Your task to perform on an android device: toggle data saver in the chrome app Image 0: 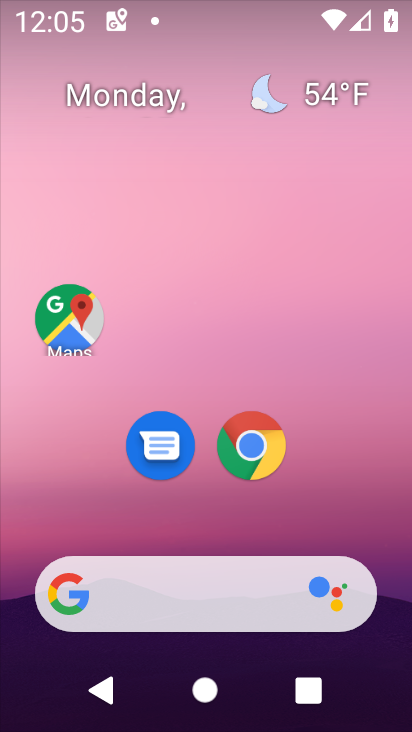
Step 0: drag from (380, 521) to (357, 96)
Your task to perform on an android device: toggle data saver in the chrome app Image 1: 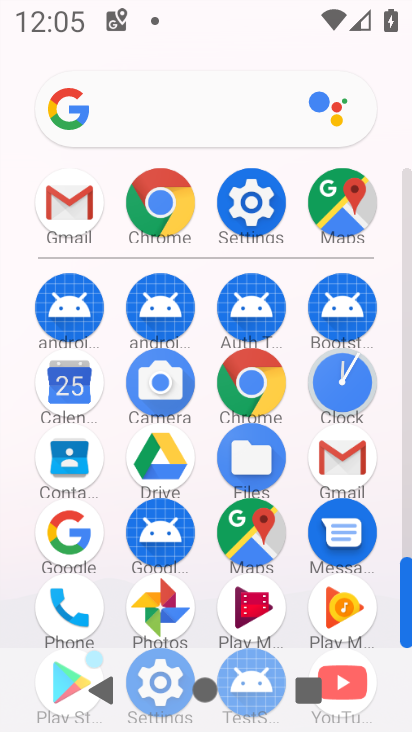
Step 1: click (253, 388)
Your task to perform on an android device: toggle data saver in the chrome app Image 2: 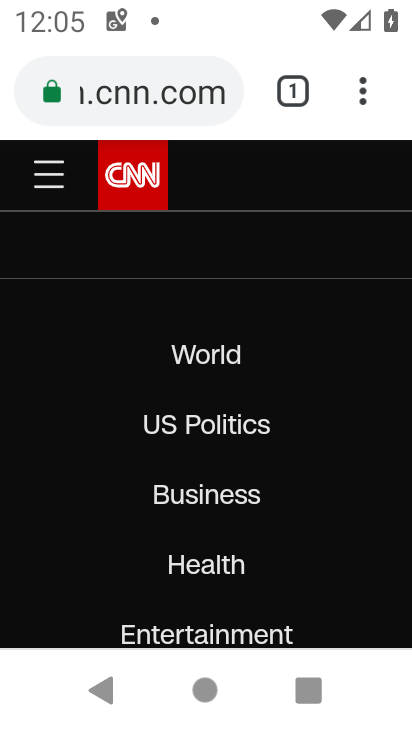
Step 2: drag from (359, 110) to (110, 462)
Your task to perform on an android device: toggle data saver in the chrome app Image 3: 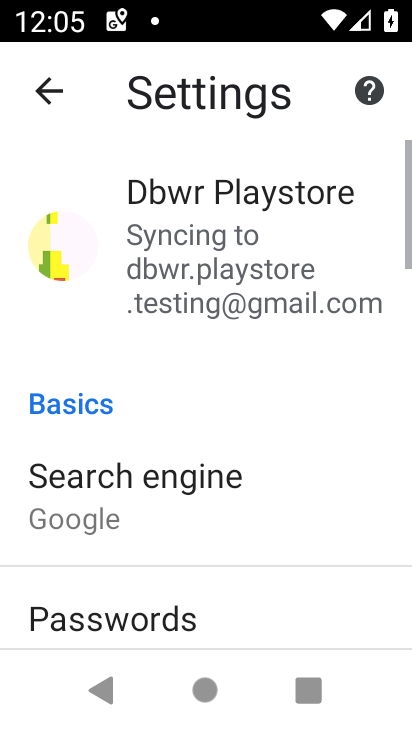
Step 3: drag from (297, 585) to (299, 220)
Your task to perform on an android device: toggle data saver in the chrome app Image 4: 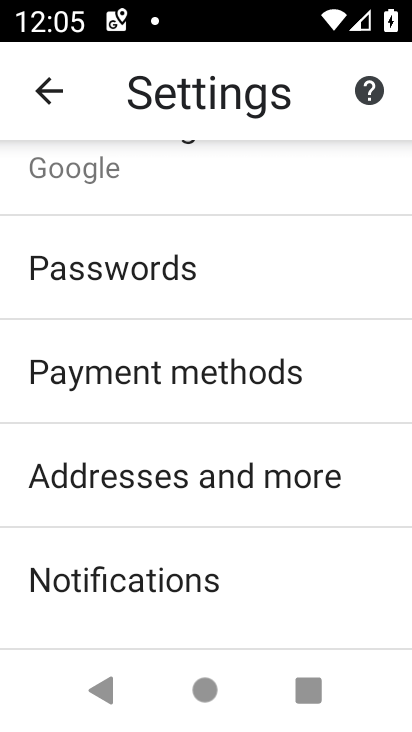
Step 4: drag from (323, 558) to (292, 233)
Your task to perform on an android device: toggle data saver in the chrome app Image 5: 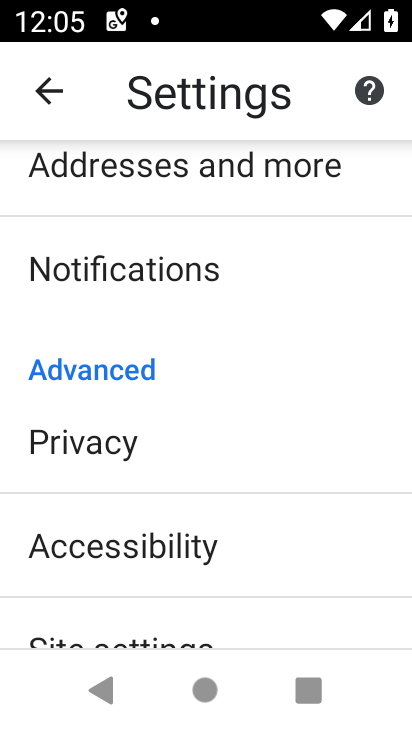
Step 5: drag from (300, 600) to (289, 267)
Your task to perform on an android device: toggle data saver in the chrome app Image 6: 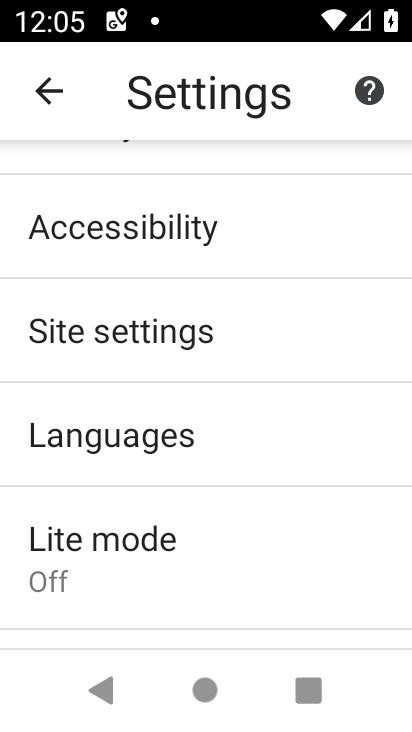
Step 6: click (79, 562)
Your task to perform on an android device: toggle data saver in the chrome app Image 7: 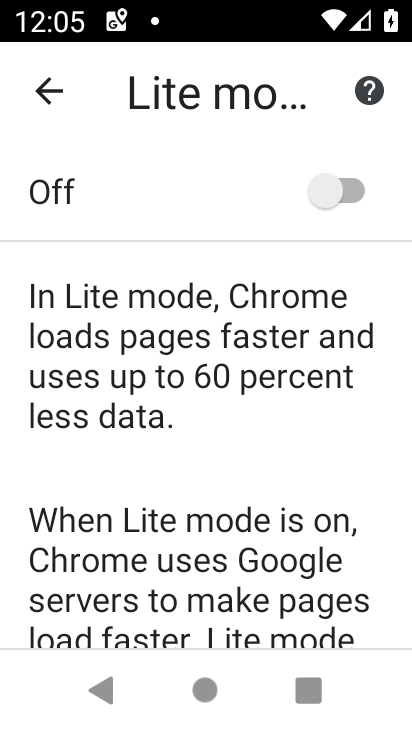
Step 7: click (356, 190)
Your task to perform on an android device: toggle data saver in the chrome app Image 8: 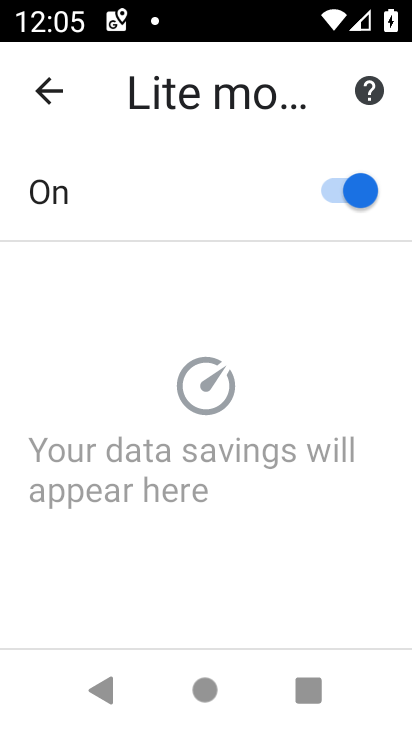
Step 8: task complete